Your task to perform on an android device: Is it going to rain today? Image 0: 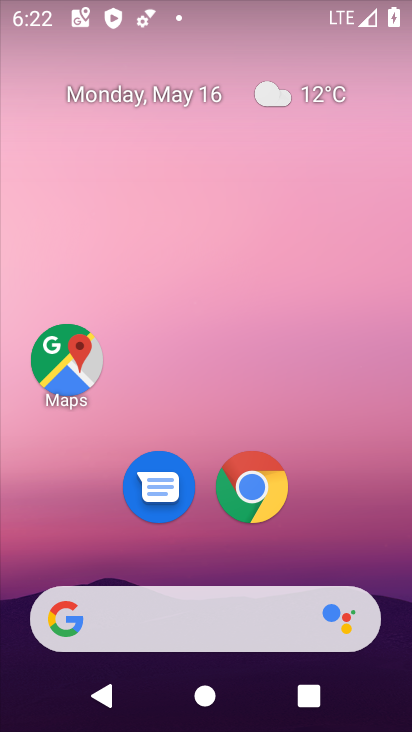
Step 0: drag from (304, 507) to (276, 676)
Your task to perform on an android device: Is it going to rain today? Image 1: 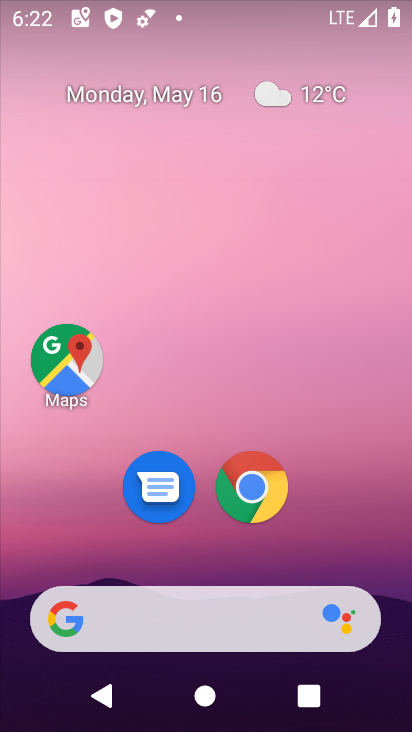
Step 1: click (324, 101)
Your task to perform on an android device: Is it going to rain today? Image 2: 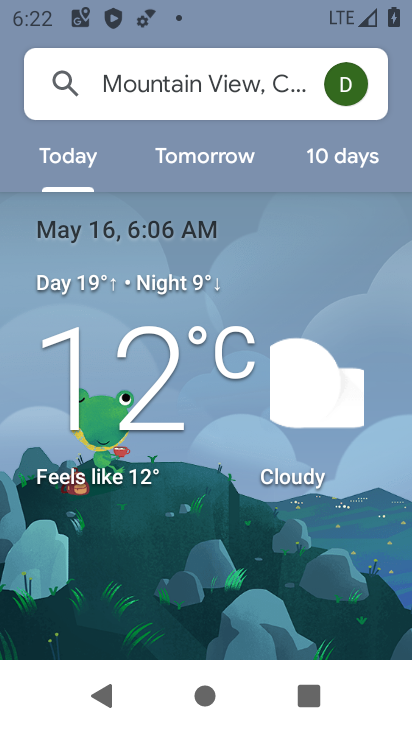
Step 2: task complete